Your task to perform on an android device: turn pop-ups on in chrome Image 0: 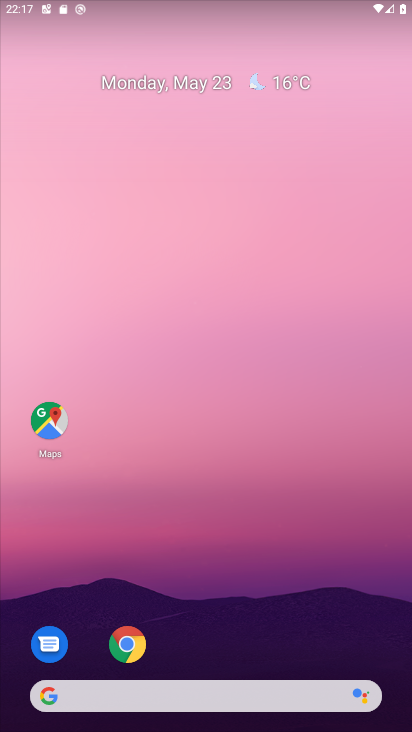
Step 0: drag from (216, 668) to (229, 3)
Your task to perform on an android device: turn pop-ups on in chrome Image 1: 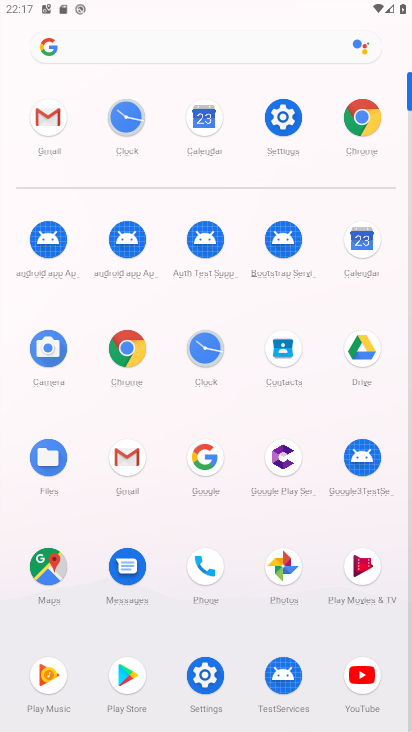
Step 1: click (126, 346)
Your task to perform on an android device: turn pop-ups on in chrome Image 2: 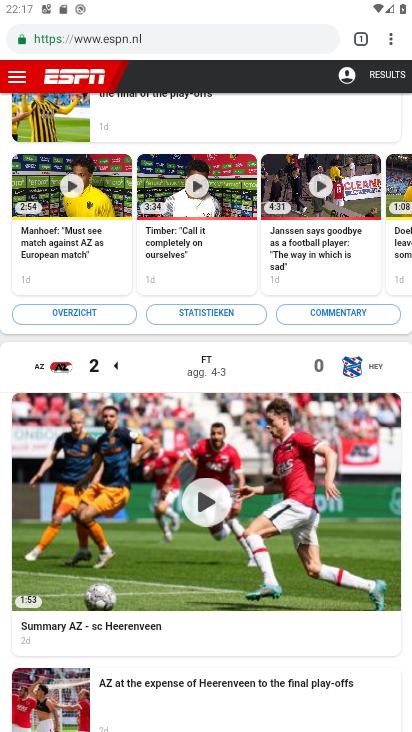
Step 2: click (387, 36)
Your task to perform on an android device: turn pop-ups on in chrome Image 3: 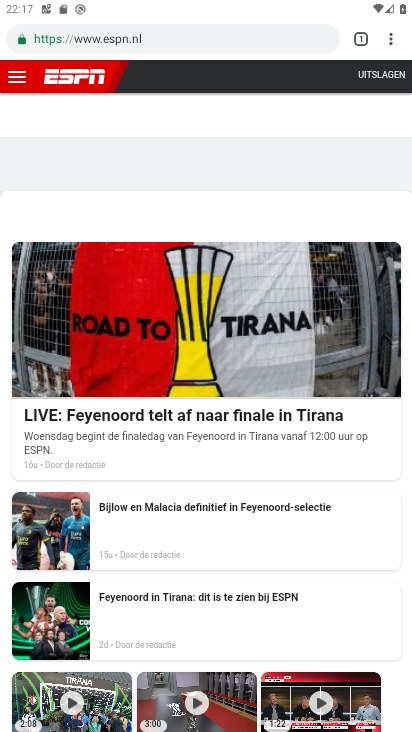
Step 3: click (391, 39)
Your task to perform on an android device: turn pop-ups on in chrome Image 4: 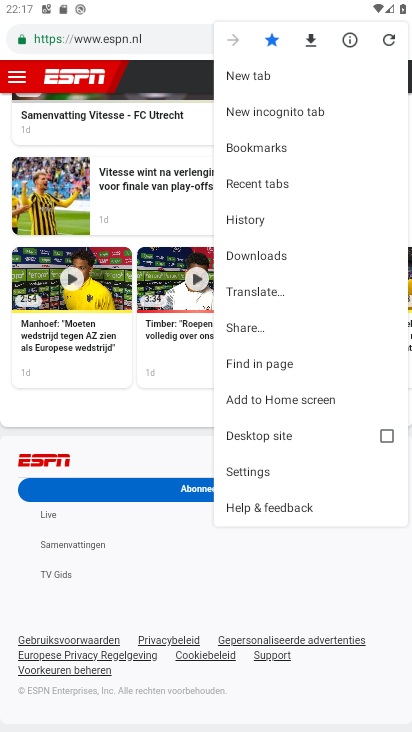
Step 4: click (270, 472)
Your task to perform on an android device: turn pop-ups on in chrome Image 5: 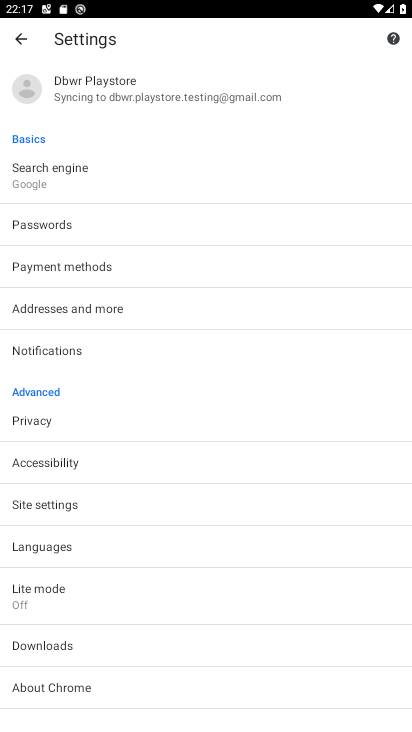
Step 5: click (93, 502)
Your task to perform on an android device: turn pop-ups on in chrome Image 6: 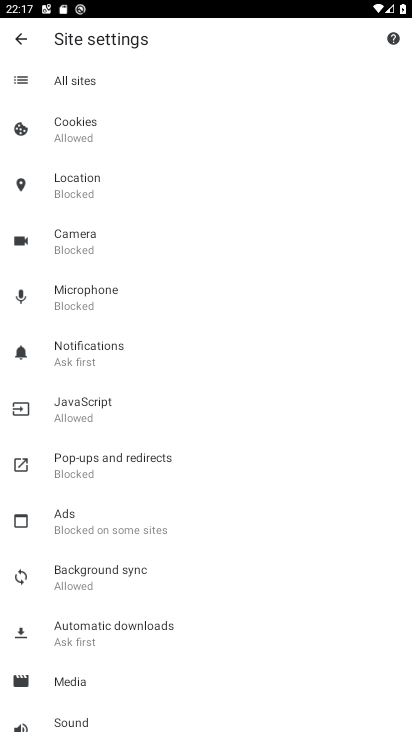
Step 6: click (111, 468)
Your task to perform on an android device: turn pop-ups on in chrome Image 7: 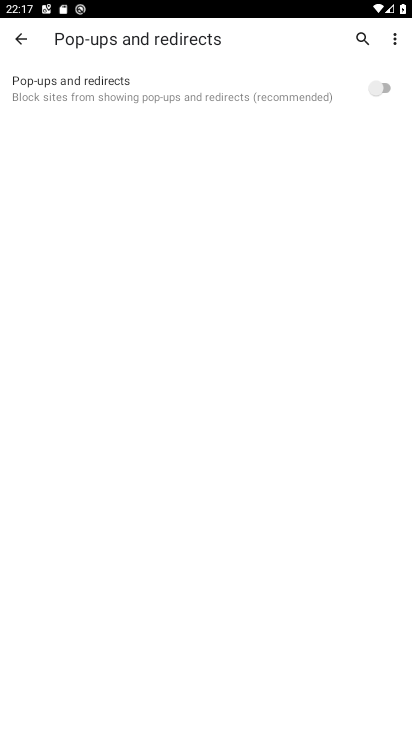
Step 7: click (387, 81)
Your task to perform on an android device: turn pop-ups on in chrome Image 8: 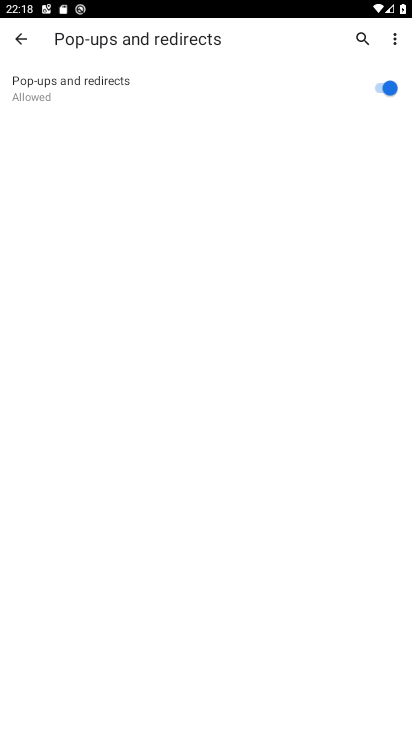
Step 8: task complete